Your task to perform on an android device: Go to display settings Image 0: 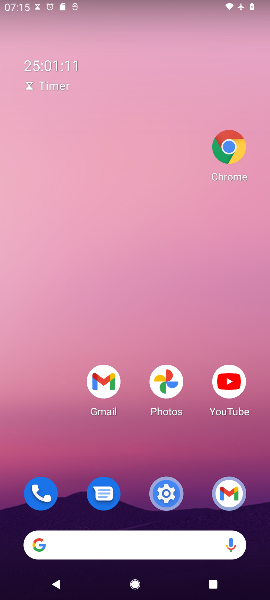
Step 0: press home button
Your task to perform on an android device: Go to display settings Image 1: 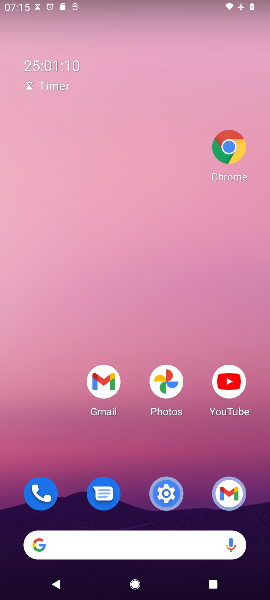
Step 1: click (160, 496)
Your task to perform on an android device: Go to display settings Image 2: 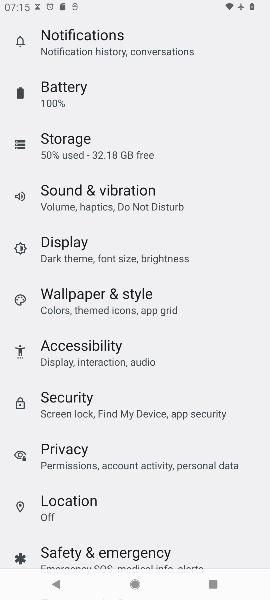
Step 2: click (80, 251)
Your task to perform on an android device: Go to display settings Image 3: 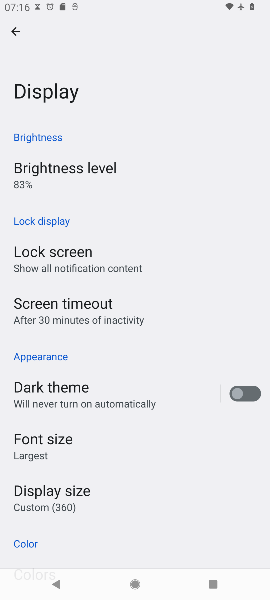
Step 3: task complete